Your task to perform on an android device: See recent photos Image 0: 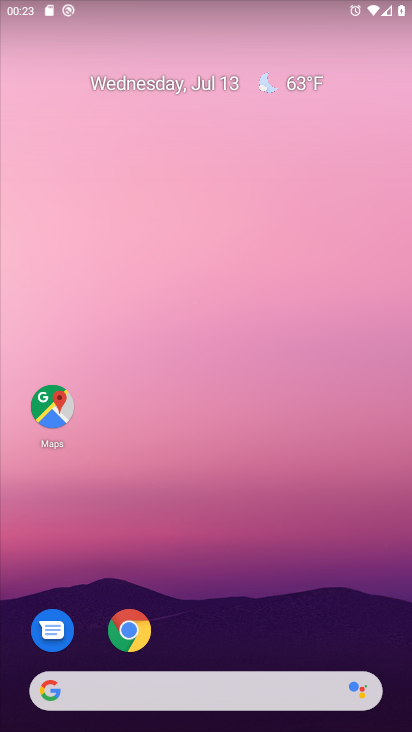
Step 0: drag from (187, 701) to (157, 255)
Your task to perform on an android device: See recent photos Image 1: 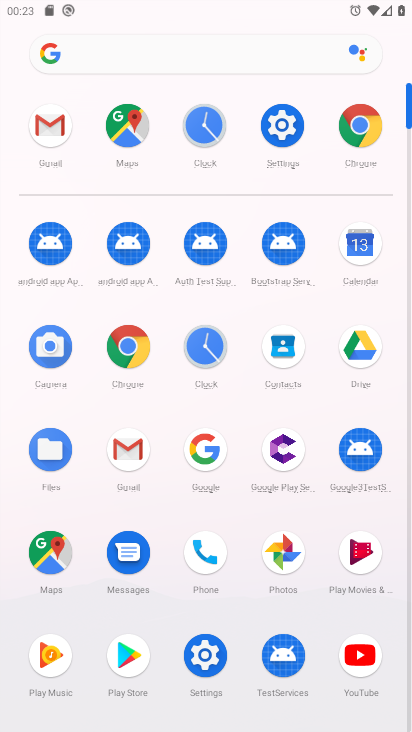
Step 1: click (256, 539)
Your task to perform on an android device: See recent photos Image 2: 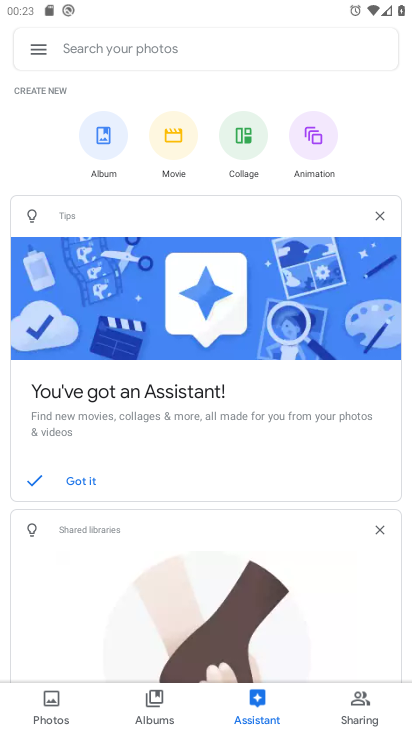
Step 2: click (50, 698)
Your task to perform on an android device: See recent photos Image 3: 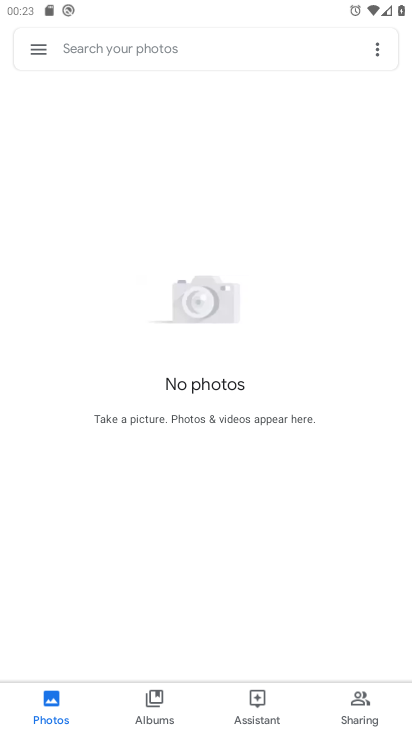
Step 3: task complete